Your task to perform on an android device: change timer sound Image 0: 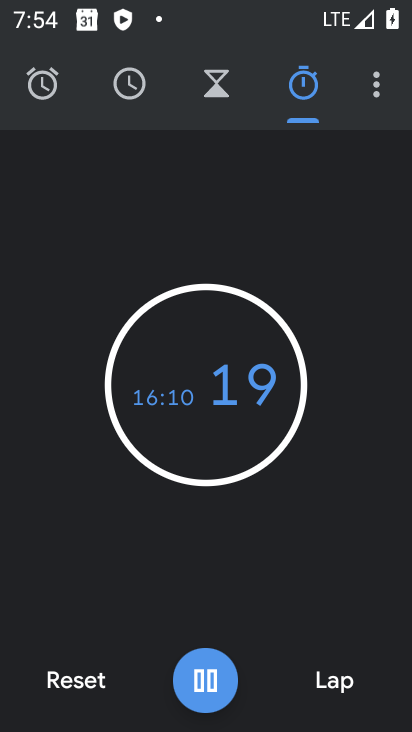
Step 0: press home button
Your task to perform on an android device: change timer sound Image 1: 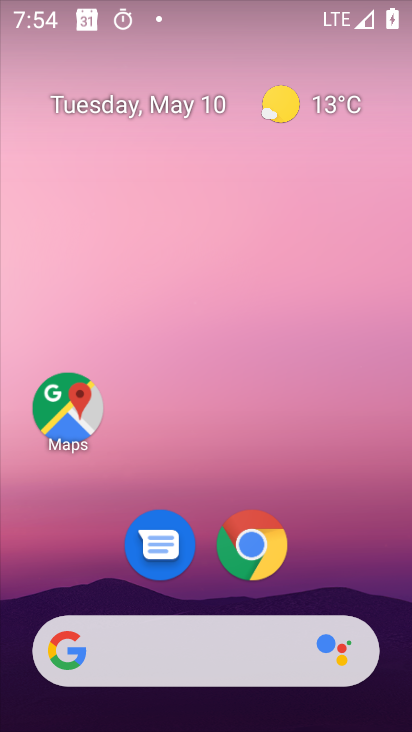
Step 1: drag from (218, 591) to (235, 80)
Your task to perform on an android device: change timer sound Image 2: 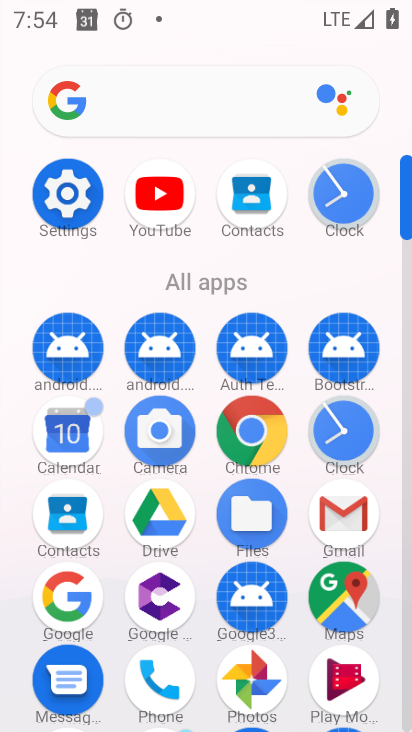
Step 2: click (337, 422)
Your task to perform on an android device: change timer sound Image 3: 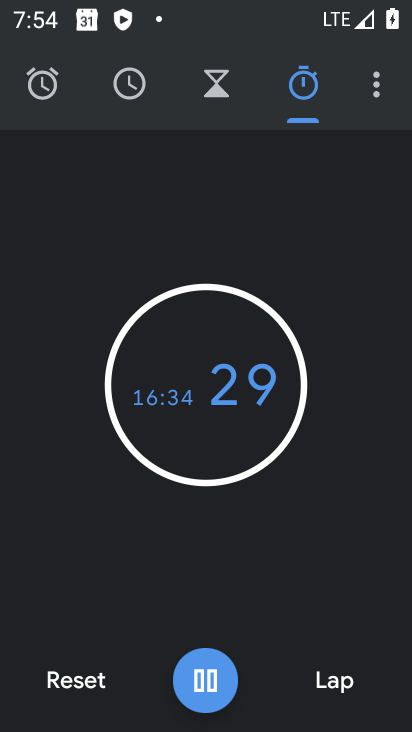
Step 3: click (90, 679)
Your task to perform on an android device: change timer sound Image 4: 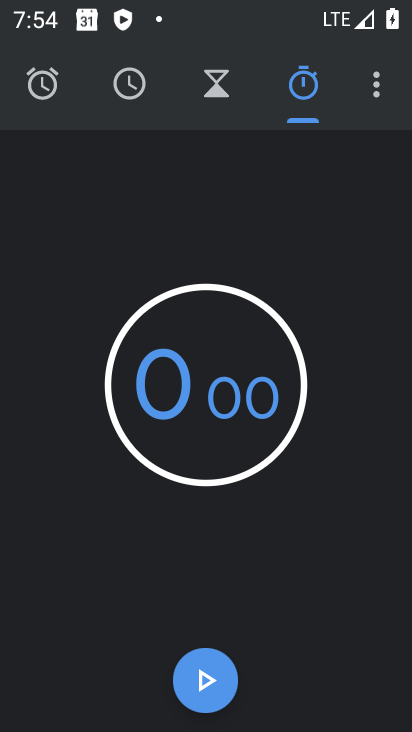
Step 4: click (382, 80)
Your task to perform on an android device: change timer sound Image 5: 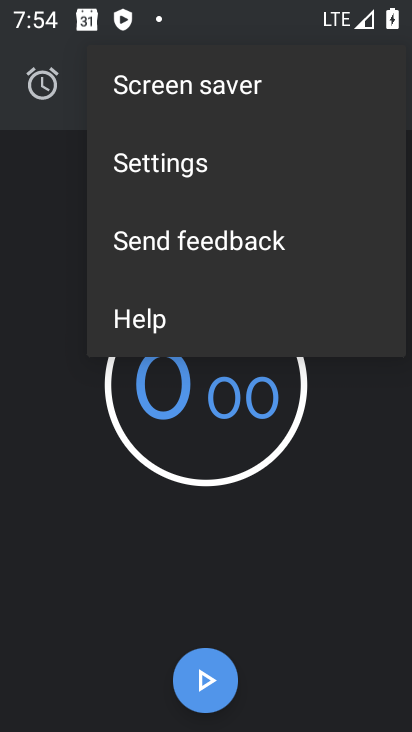
Step 5: click (218, 155)
Your task to perform on an android device: change timer sound Image 6: 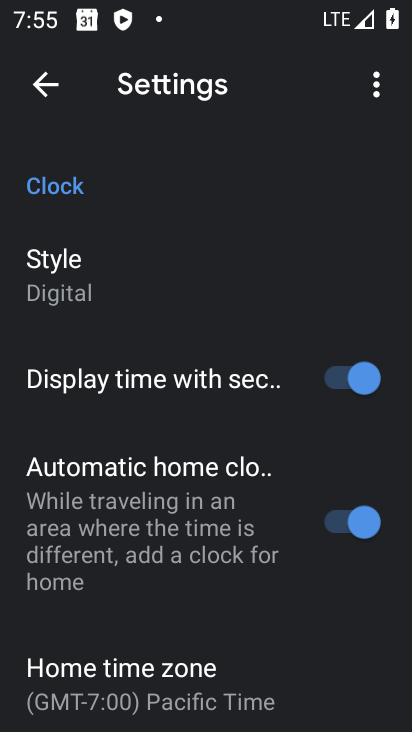
Step 6: drag from (159, 637) to (230, 214)
Your task to perform on an android device: change timer sound Image 7: 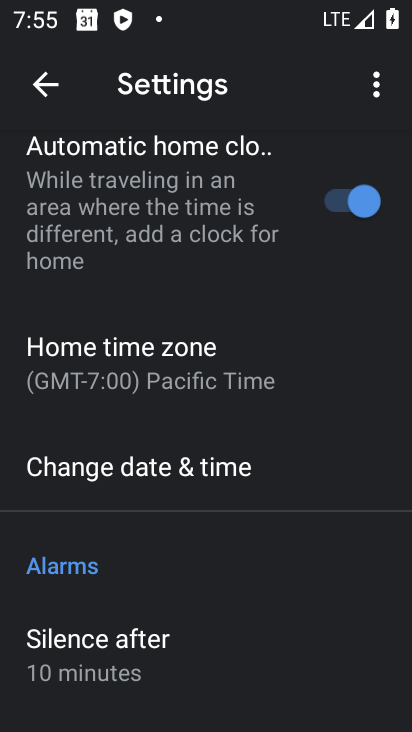
Step 7: drag from (186, 641) to (196, 62)
Your task to perform on an android device: change timer sound Image 8: 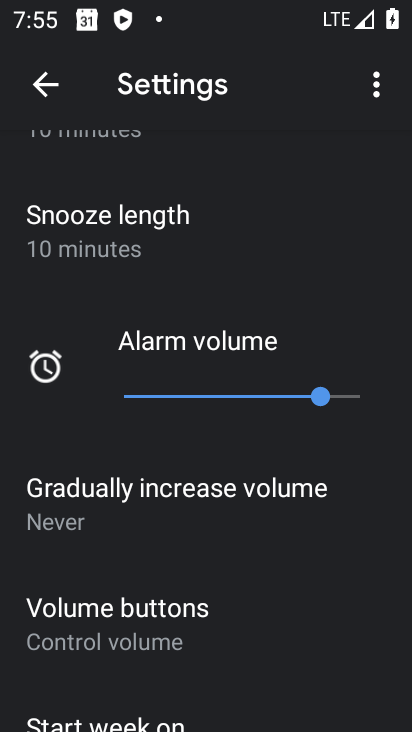
Step 8: drag from (197, 662) to (205, 120)
Your task to perform on an android device: change timer sound Image 9: 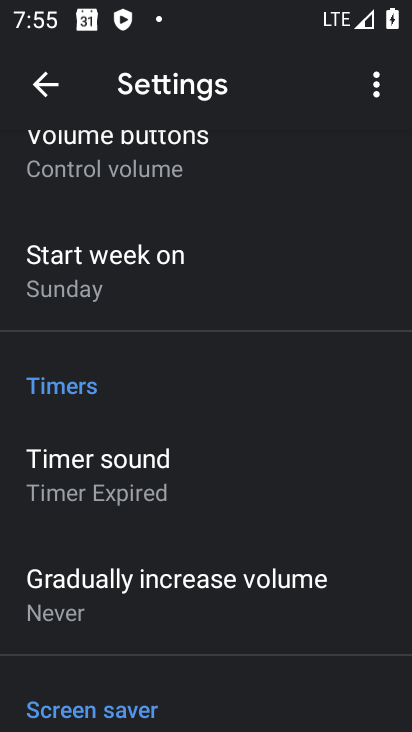
Step 9: click (186, 476)
Your task to perform on an android device: change timer sound Image 10: 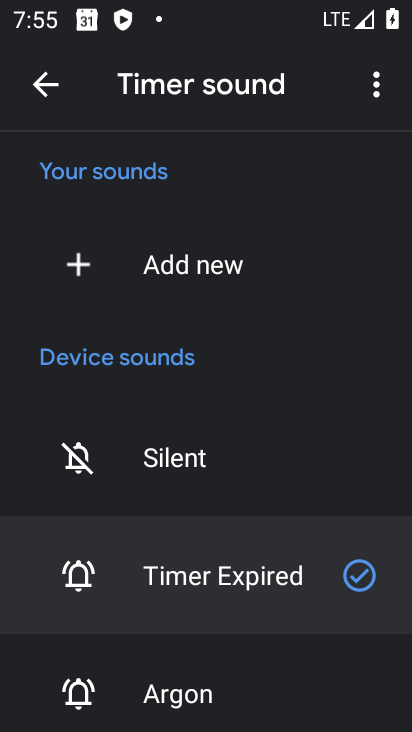
Step 10: drag from (221, 648) to (223, 306)
Your task to perform on an android device: change timer sound Image 11: 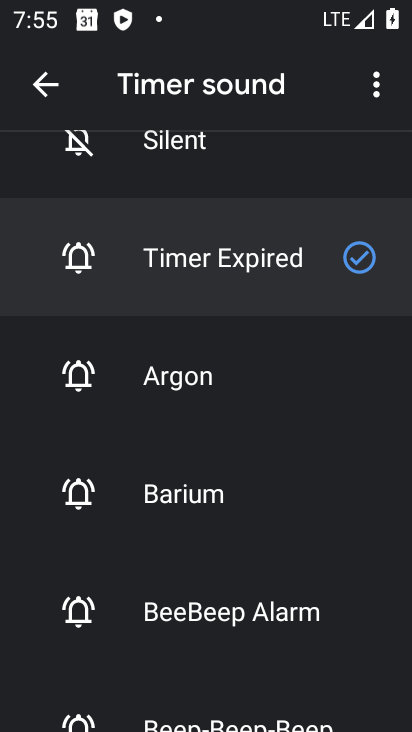
Step 11: click (239, 618)
Your task to perform on an android device: change timer sound Image 12: 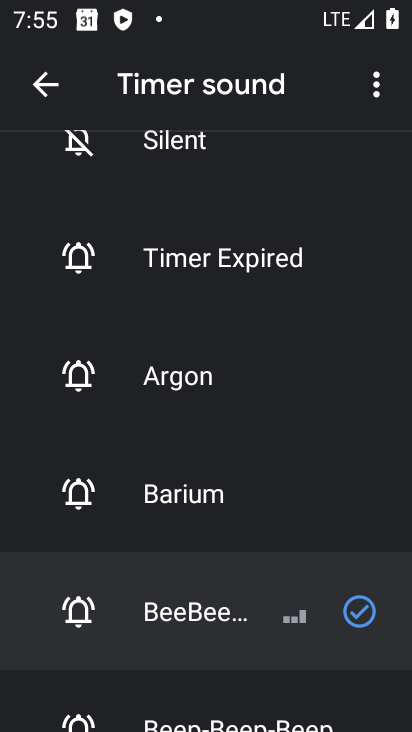
Step 12: task complete